Your task to perform on an android device: Open accessibility settings Image 0: 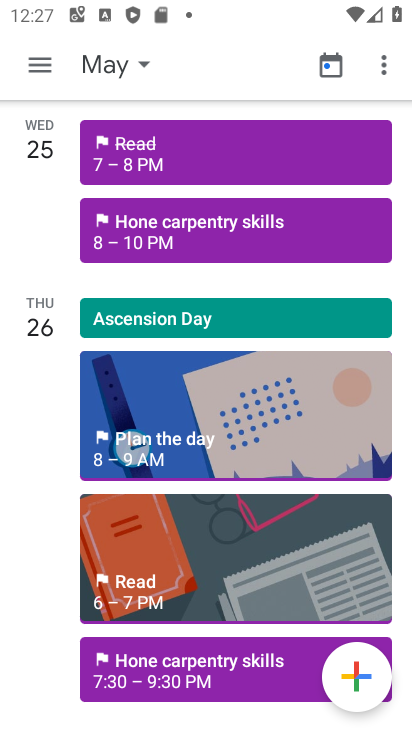
Step 0: press home button
Your task to perform on an android device: Open accessibility settings Image 1: 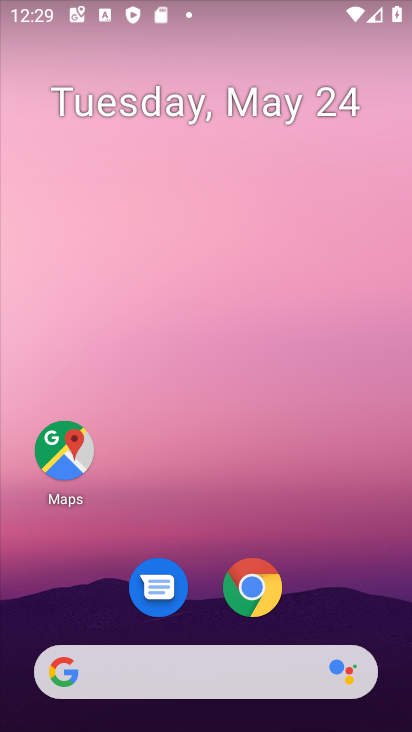
Step 1: drag from (269, 717) to (256, 171)
Your task to perform on an android device: Open accessibility settings Image 2: 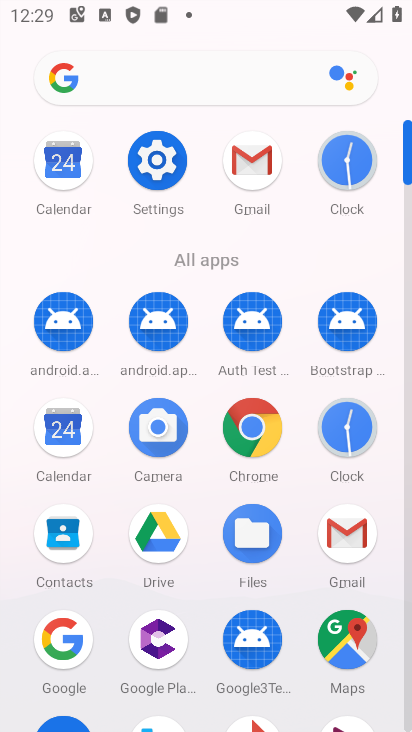
Step 2: click (139, 164)
Your task to perform on an android device: Open accessibility settings Image 3: 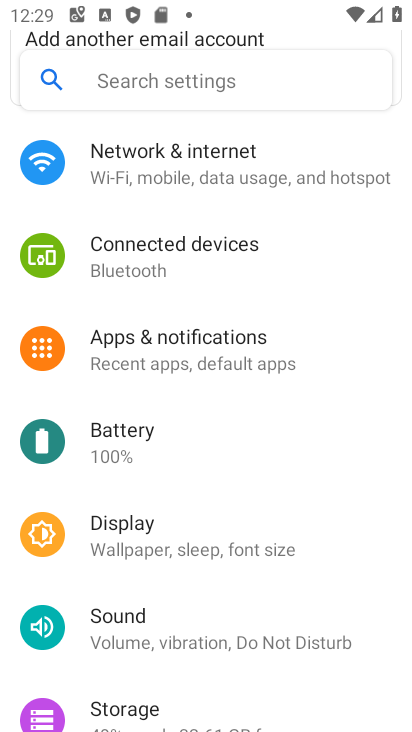
Step 3: drag from (263, 627) to (306, 142)
Your task to perform on an android device: Open accessibility settings Image 4: 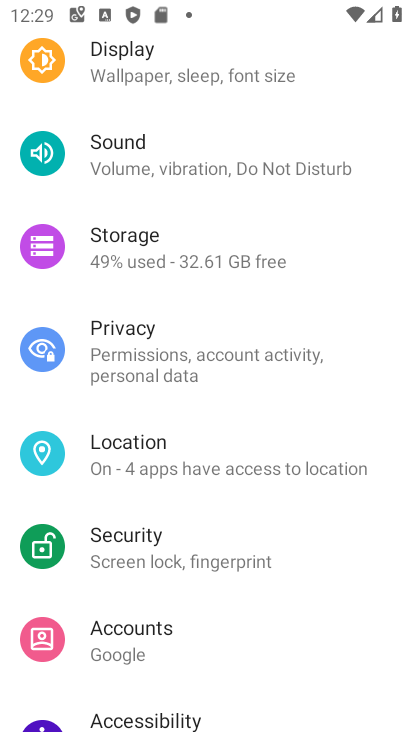
Step 4: click (212, 715)
Your task to perform on an android device: Open accessibility settings Image 5: 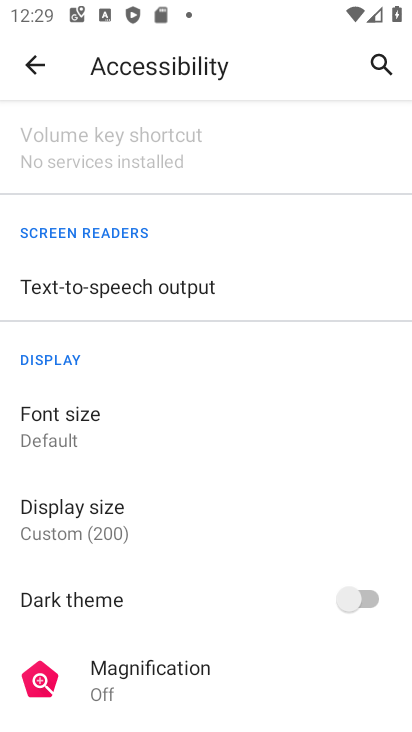
Step 5: task complete